Your task to perform on an android device: turn pop-ups on in chrome Image 0: 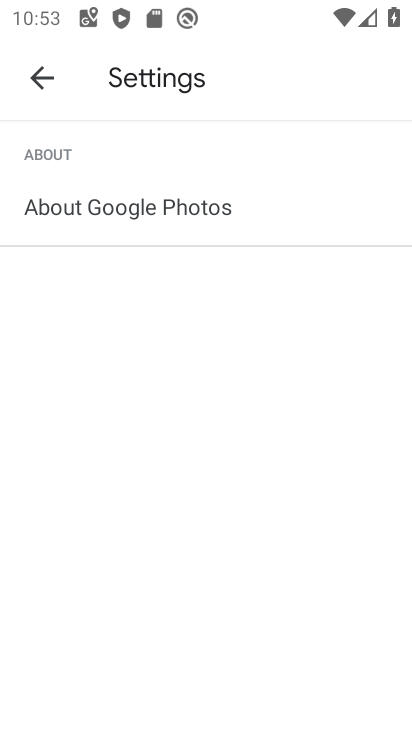
Step 0: press back button
Your task to perform on an android device: turn pop-ups on in chrome Image 1: 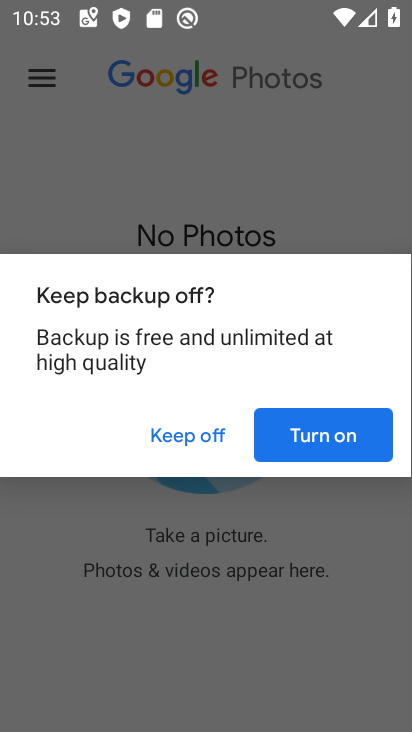
Step 1: press home button
Your task to perform on an android device: turn pop-ups on in chrome Image 2: 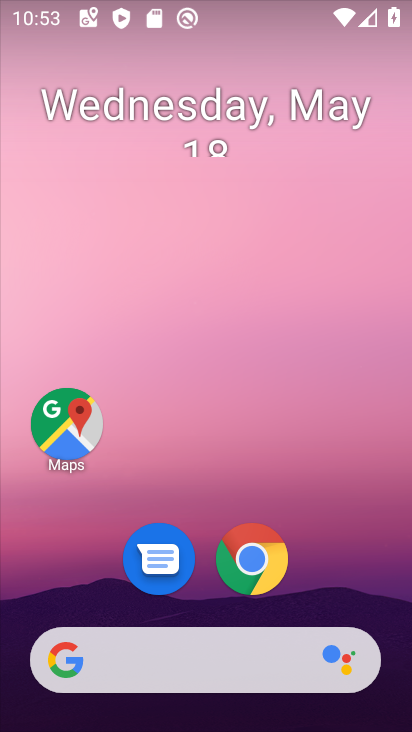
Step 2: click (254, 572)
Your task to perform on an android device: turn pop-ups on in chrome Image 3: 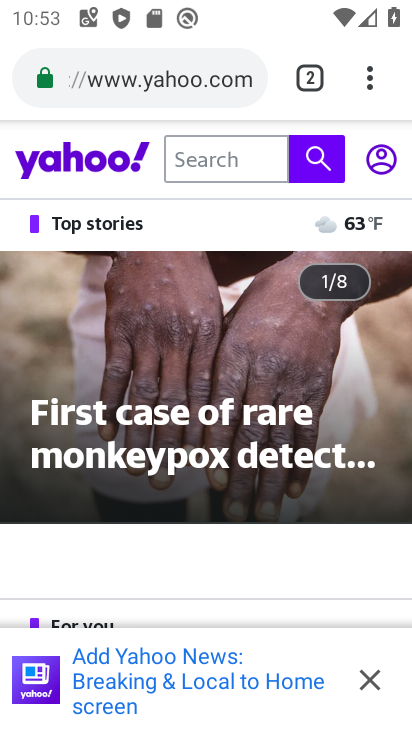
Step 3: click (364, 76)
Your task to perform on an android device: turn pop-ups on in chrome Image 4: 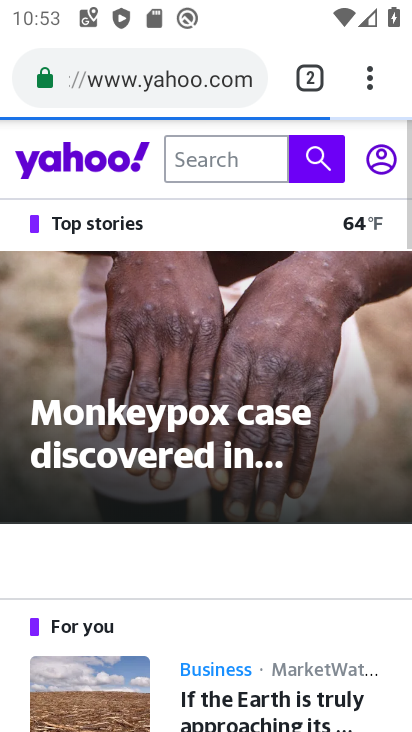
Step 4: drag from (364, 79) to (92, 615)
Your task to perform on an android device: turn pop-ups on in chrome Image 5: 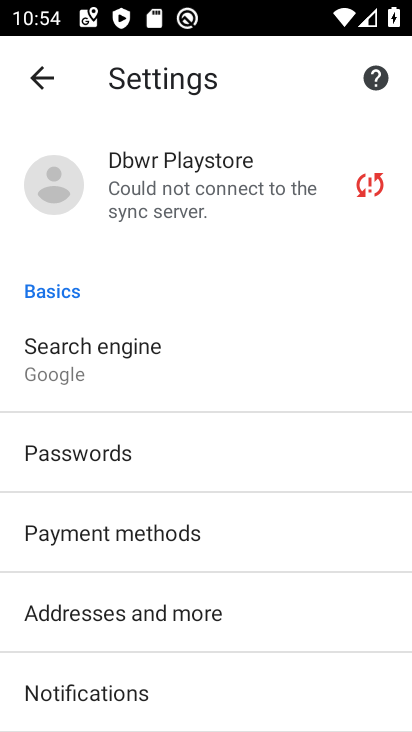
Step 5: drag from (156, 627) to (220, 364)
Your task to perform on an android device: turn pop-ups on in chrome Image 6: 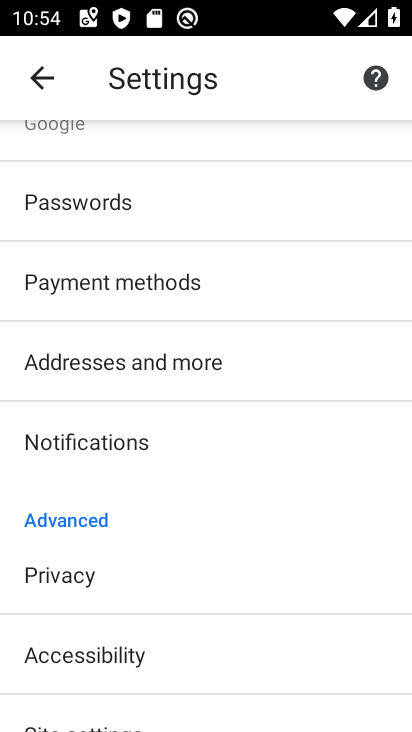
Step 6: drag from (110, 650) to (234, 147)
Your task to perform on an android device: turn pop-ups on in chrome Image 7: 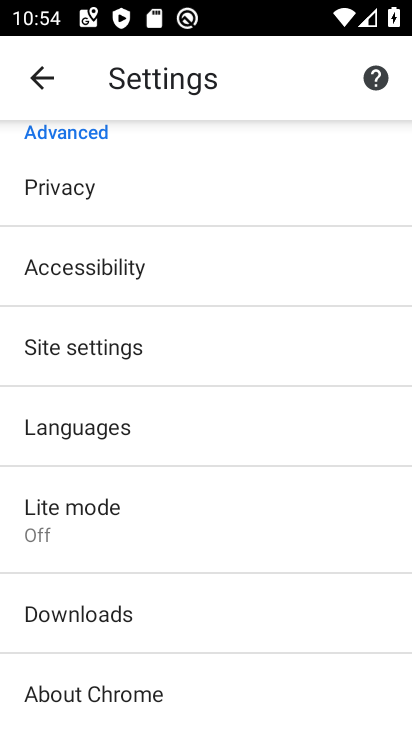
Step 7: click (108, 349)
Your task to perform on an android device: turn pop-ups on in chrome Image 8: 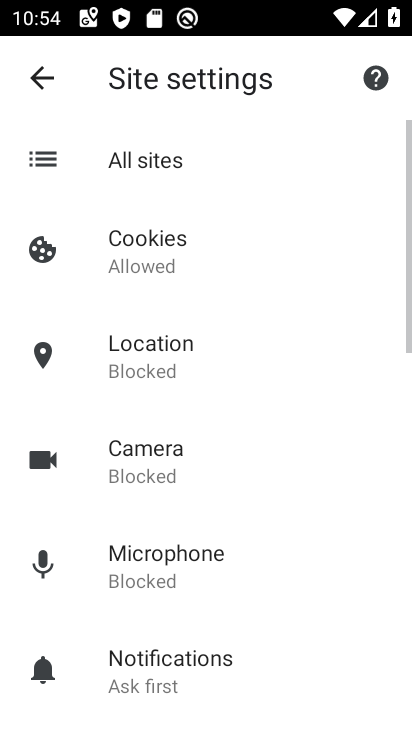
Step 8: drag from (199, 642) to (333, 112)
Your task to perform on an android device: turn pop-ups on in chrome Image 9: 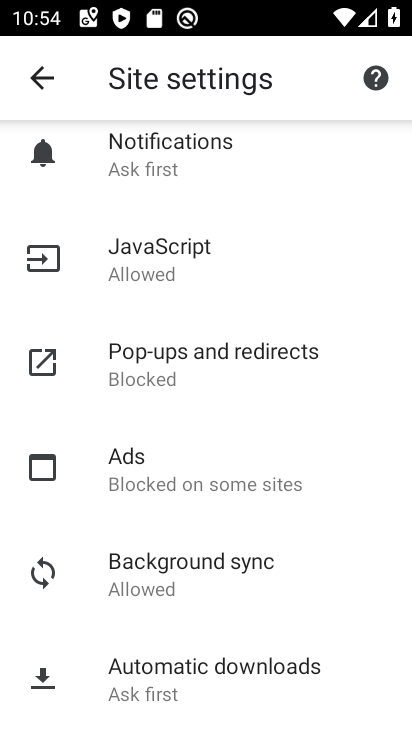
Step 9: click (167, 362)
Your task to perform on an android device: turn pop-ups on in chrome Image 10: 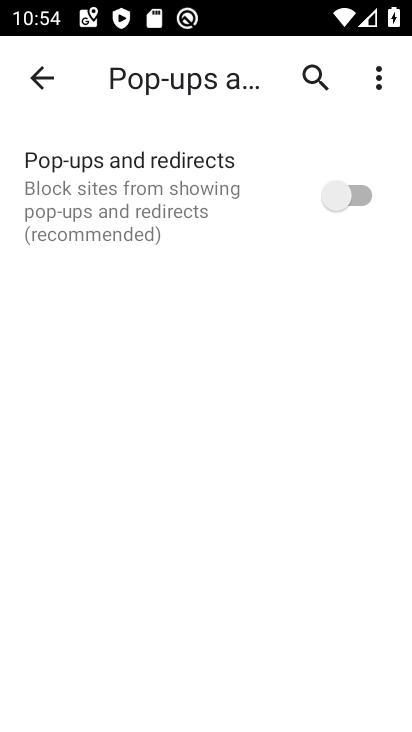
Step 10: click (347, 190)
Your task to perform on an android device: turn pop-ups on in chrome Image 11: 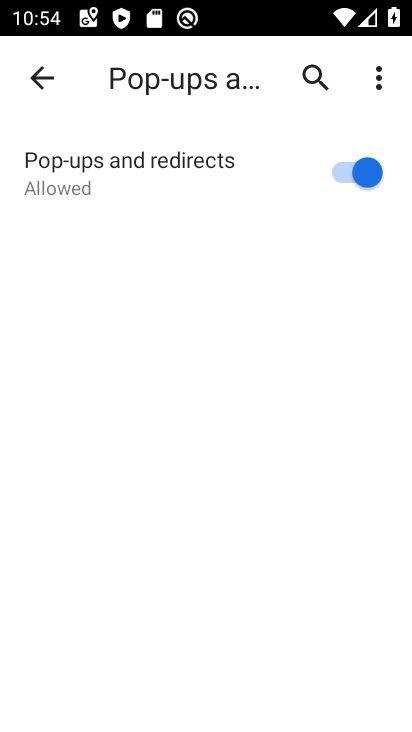
Step 11: task complete